Your task to perform on an android device: Open Chrome and go to the settings page Image 0: 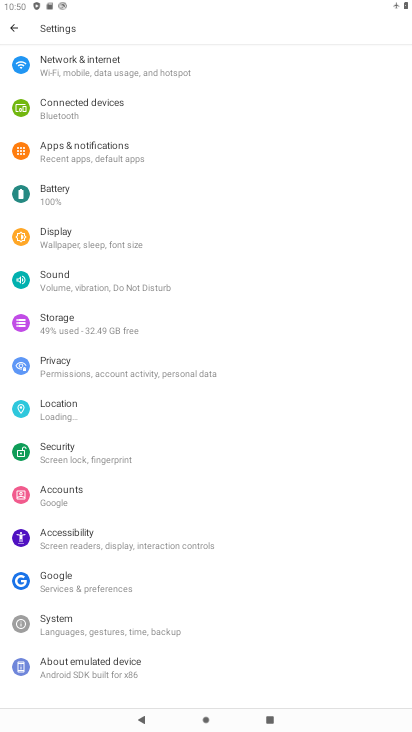
Step 0: press home button
Your task to perform on an android device: Open Chrome and go to the settings page Image 1: 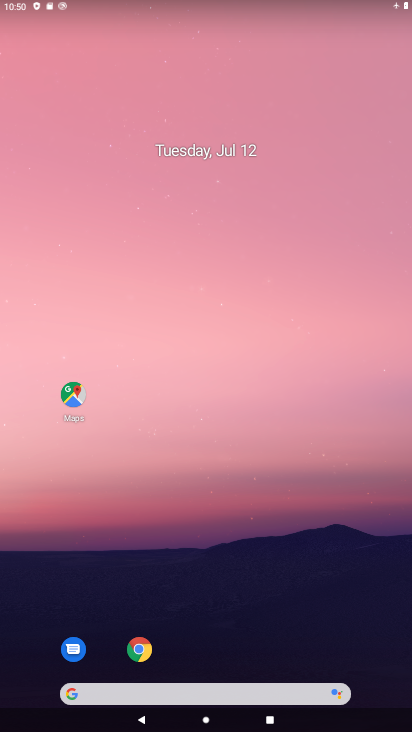
Step 1: click (138, 649)
Your task to perform on an android device: Open Chrome and go to the settings page Image 2: 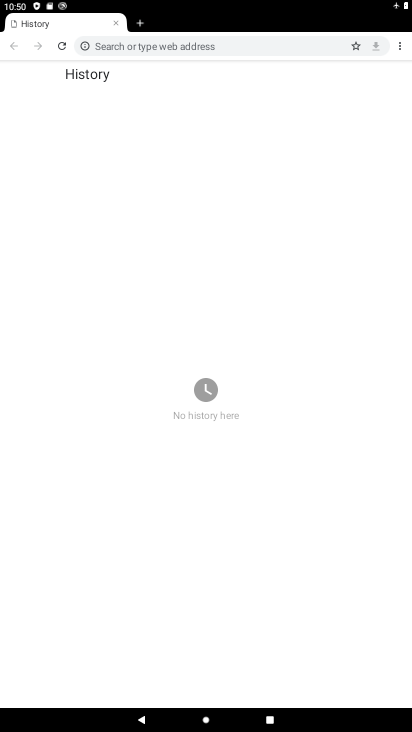
Step 2: click (397, 47)
Your task to perform on an android device: Open Chrome and go to the settings page Image 3: 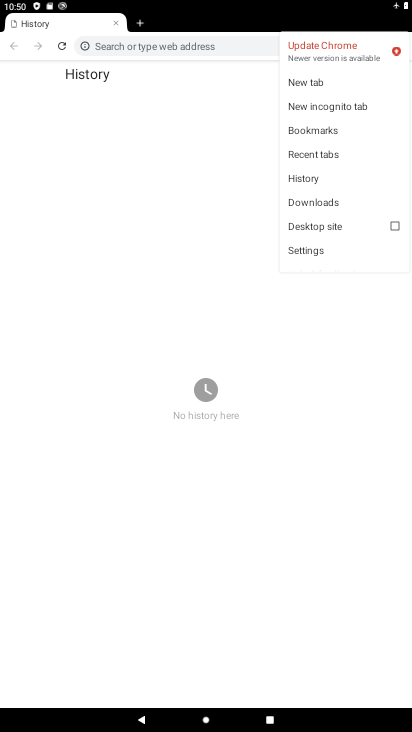
Step 3: click (303, 246)
Your task to perform on an android device: Open Chrome and go to the settings page Image 4: 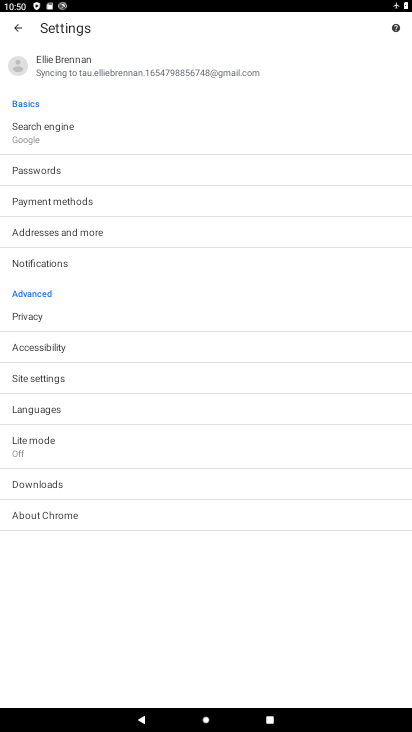
Step 4: task complete